Your task to perform on an android device: toggle translation in the chrome app Image 0: 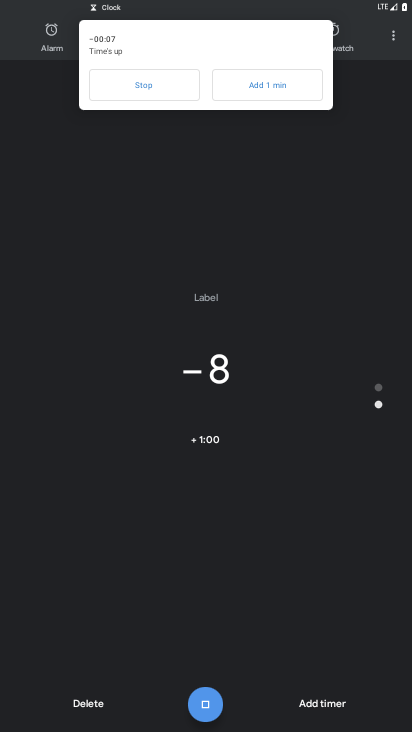
Step 0: press home button
Your task to perform on an android device: toggle translation in the chrome app Image 1: 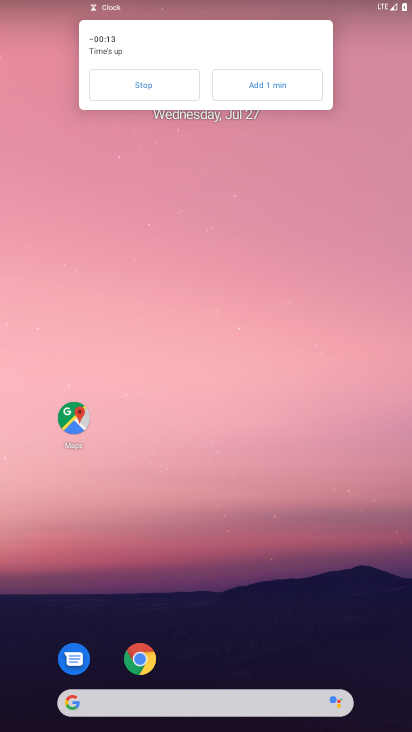
Step 1: click (141, 657)
Your task to perform on an android device: toggle translation in the chrome app Image 2: 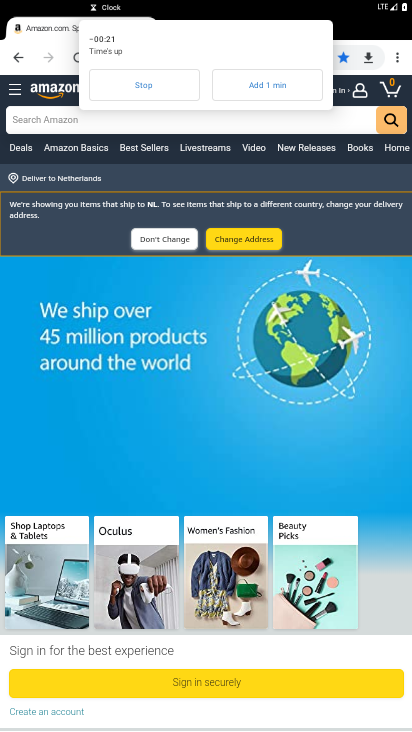
Step 2: click (398, 61)
Your task to perform on an android device: toggle translation in the chrome app Image 3: 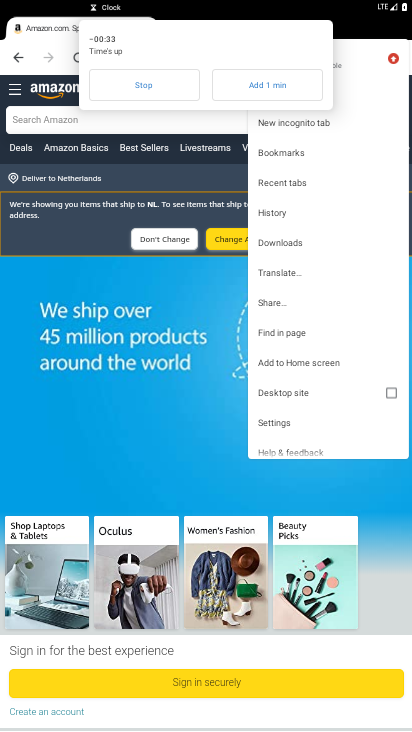
Step 3: click (275, 419)
Your task to perform on an android device: toggle translation in the chrome app Image 4: 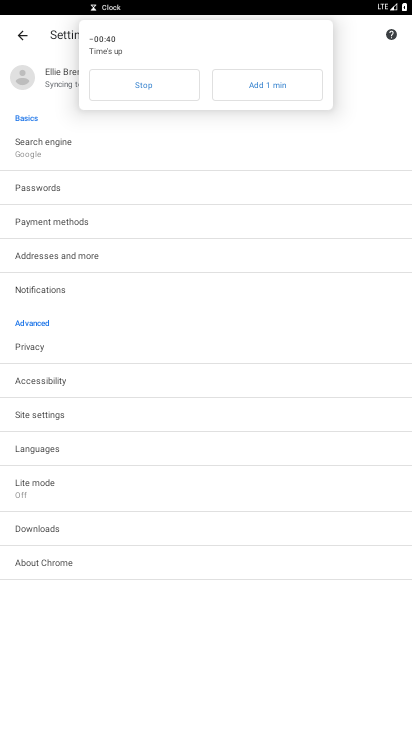
Step 4: click (46, 450)
Your task to perform on an android device: toggle translation in the chrome app Image 5: 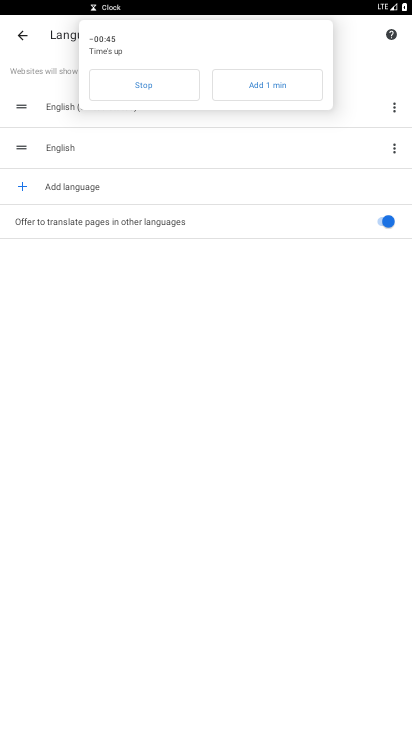
Step 5: click (384, 219)
Your task to perform on an android device: toggle translation in the chrome app Image 6: 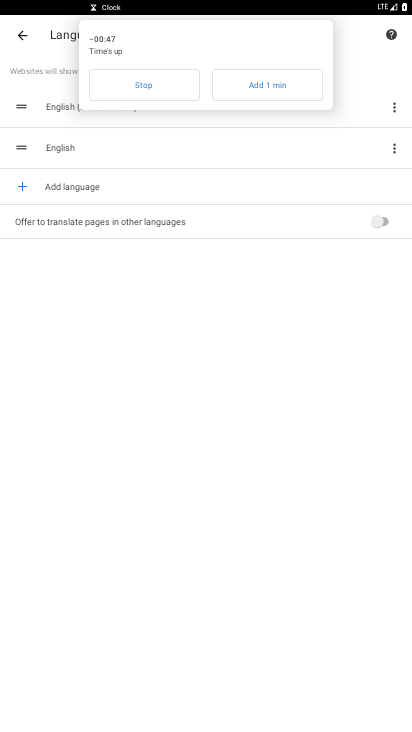
Step 6: task complete